Your task to perform on an android device: set an alarm Image 0: 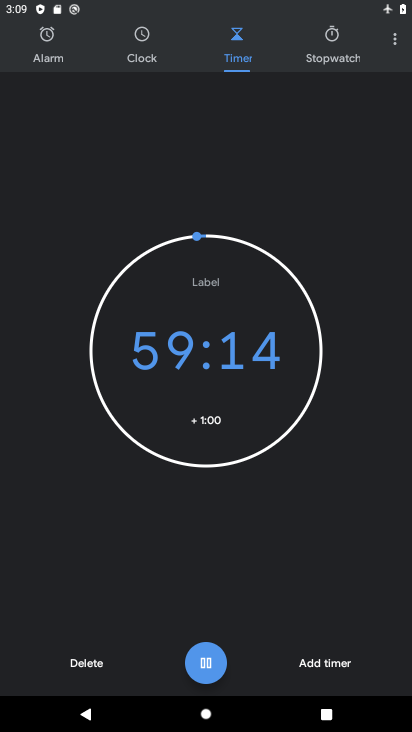
Step 0: press home button
Your task to perform on an android device: set an alarm Image 1: 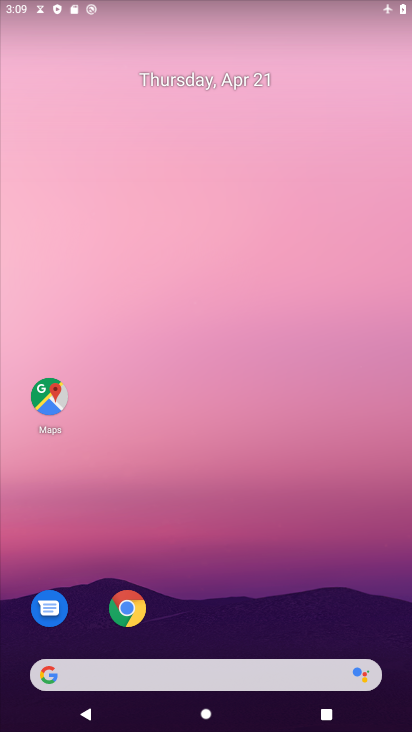
Step 1: drag from (197, 626) to (171, 186)
Your task to perform on an android device: set an alarm Image 2: 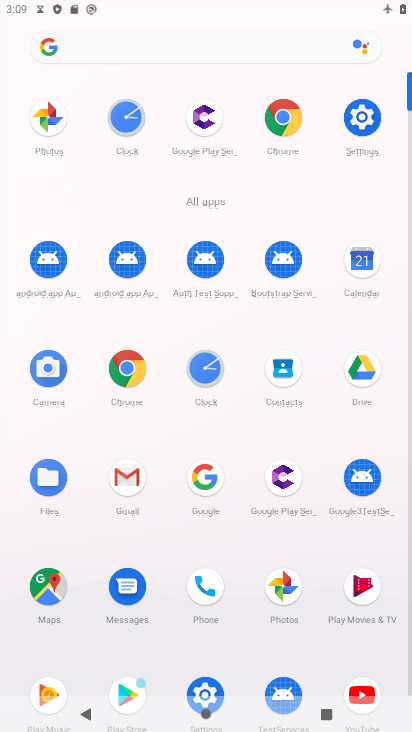
Step 2: click (132, 125)
Your task to perform on an android device: set an alarm Image 3: 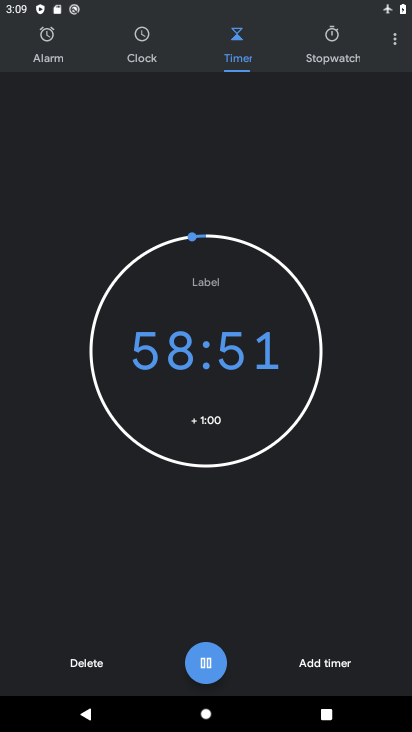
Step 3: click (58, 48)
Your task to perform on an android device: set an alarm Image 4: 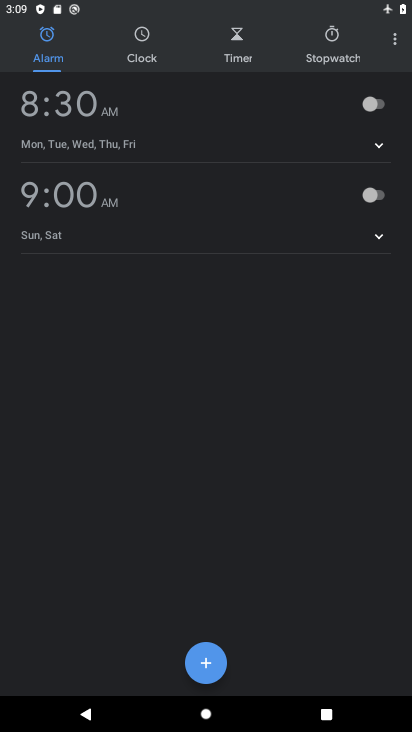
Step 4: click (207, 654)
Your task to perform on an android device: set an alarm Image 5: 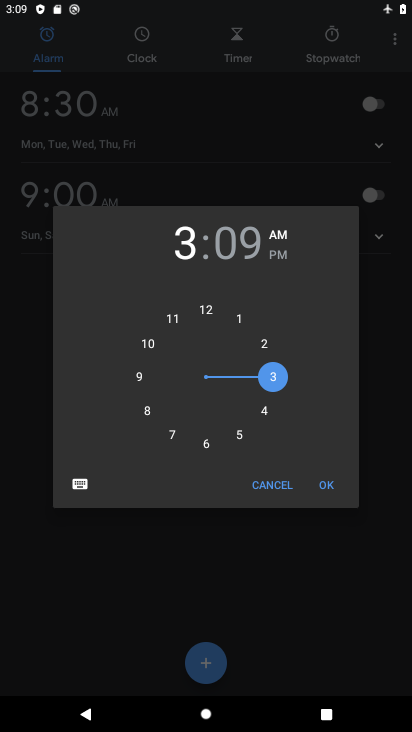
Step 5: click (214, 443)
Your task to perform on an android device: set an alarm Image 6: 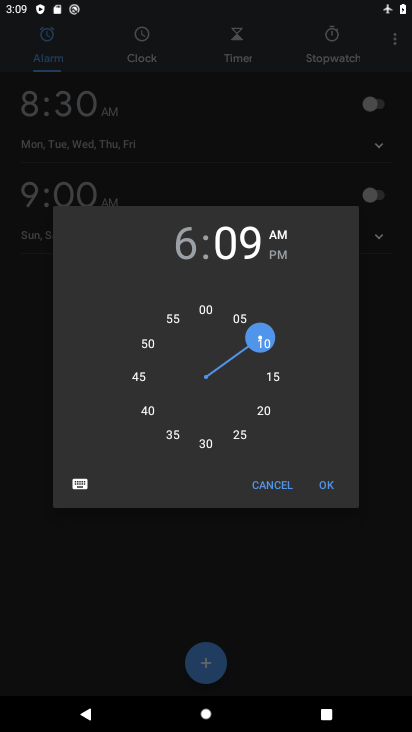
Step 6: click (329, 486)
Your task to perform on an android device: set an alarm Image 7: 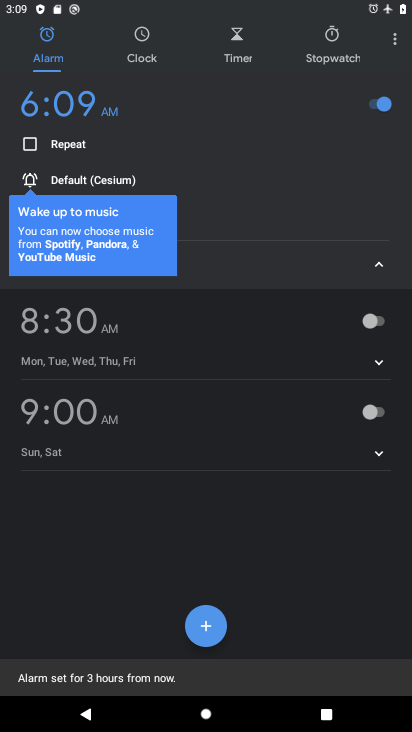
Step 7: task complete